Your task to perform on an android device: toggle show notifications on the lock screen Image 0: 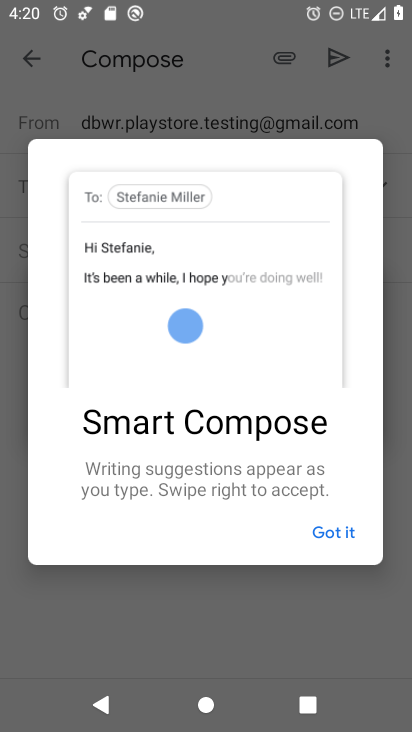
Step 0: press home button
Your task to perform on an android device: toggle show notifications on the lock screen Image 1: 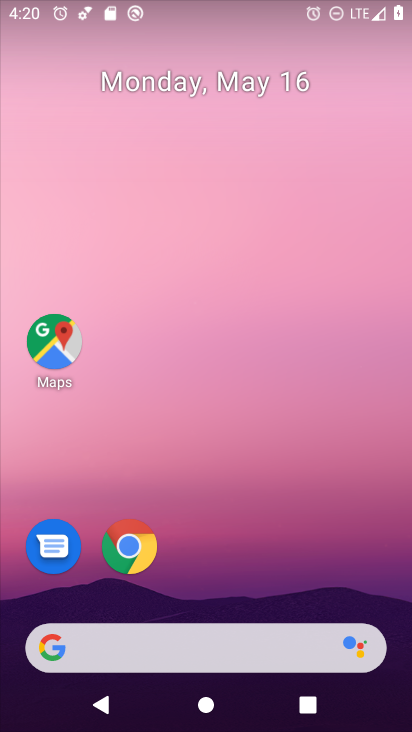
Step 1: drag from (340, 561) to (356, 119)
Your task to perform on an android device: toggle show notifications on the lock screen Image 2: 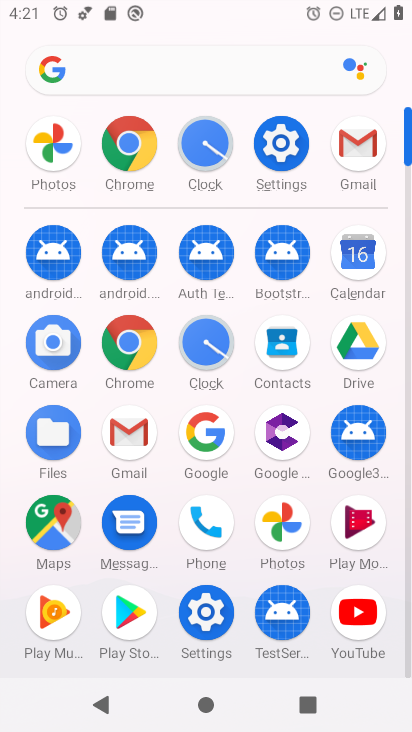
Step 2: click (207, 628)
Your task to perform on an android device: toggle show notifications on the lock screen Image 3: 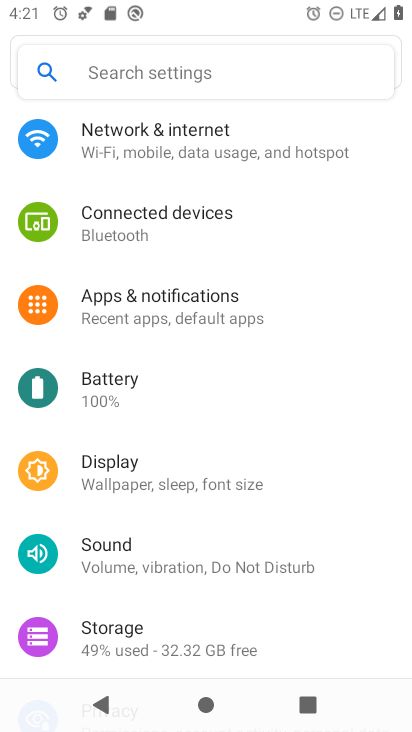
Step 3: drag from (328, 614) to (348, 472)
Your task to perform on an android device: toggle show notifications on the lock screen Image 4: 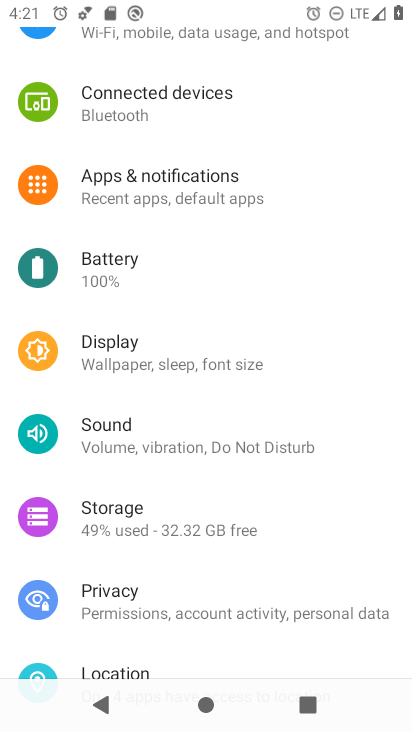
Step 4: drag from (327, 625) to (350, 455)
Your task to perform on an android device: toggle show notifications on the lock screen Image 5: 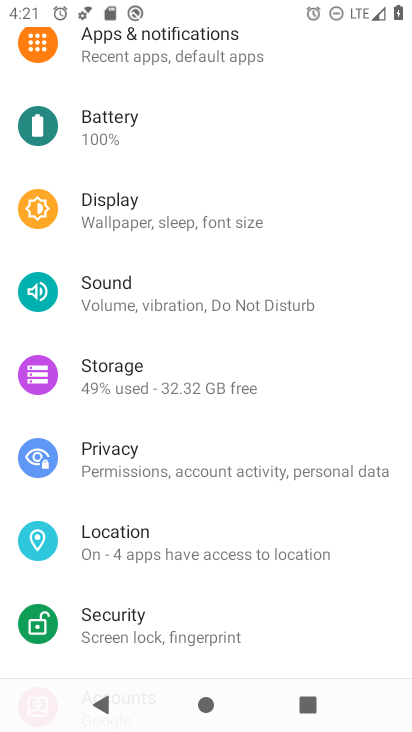
Step 5: drag from (333, 622) to (345, 406)
Your task to perform on an android device: toggle show notifications on the lock screen Image 6: 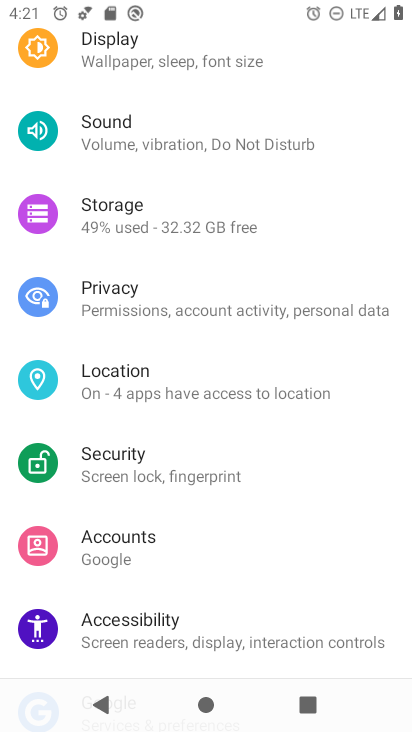
Step 6: drag from (303, 635) to (327, 409)
Your task to perform on an android device: toggle show notifications on the lock screen Image 7: 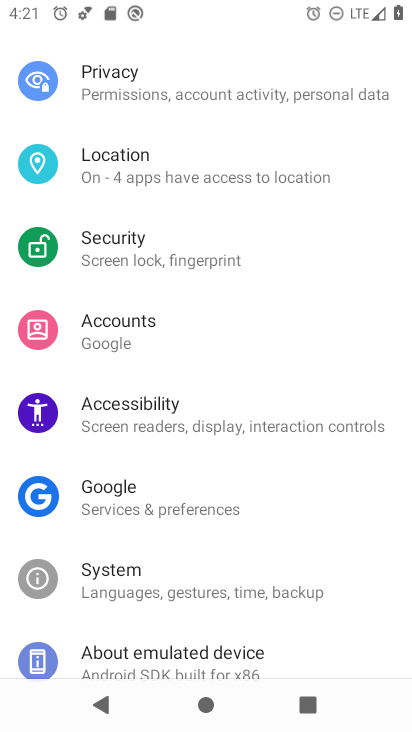
Step 7: drag from (297, 647) to (317, 448)
Your task to perform on an android device: toggle show notifications on the lock screen Image 8: 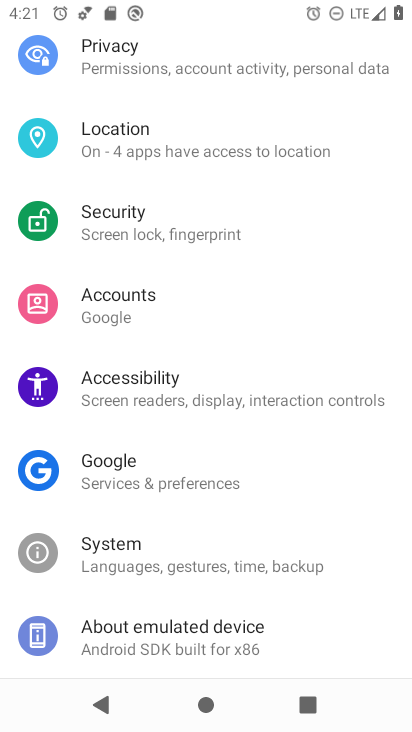
Step 8: drag from (332, 298) to (327, 413)
Your task to perform on an android device: toggle show notifications on the lock screen Image 9: 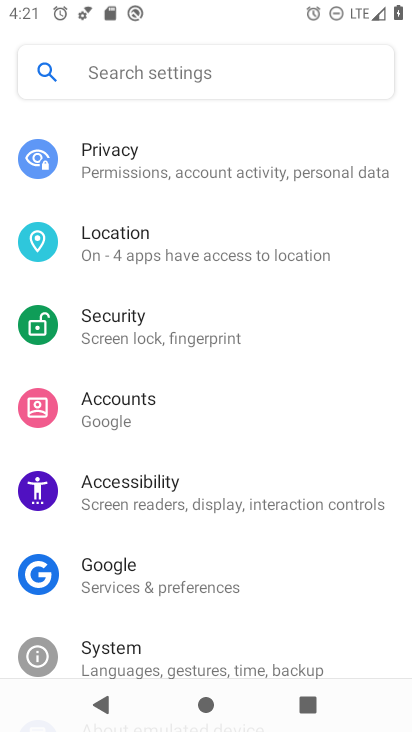
Step 9: drag from (361, 240) to (362, 374)
Your task to perform on an android device: toggle show notifications on the lock screen Image 10: 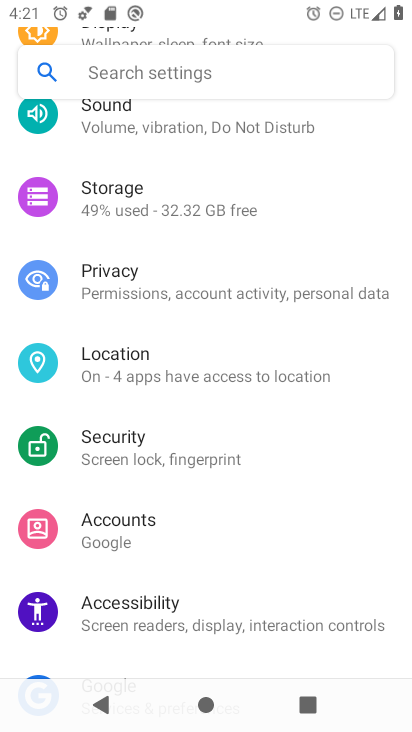
Step 10: drag from (360, 229) to (358, 351)
Your task to perform on an android device: toggle show notifications on the lock screen Image 11: 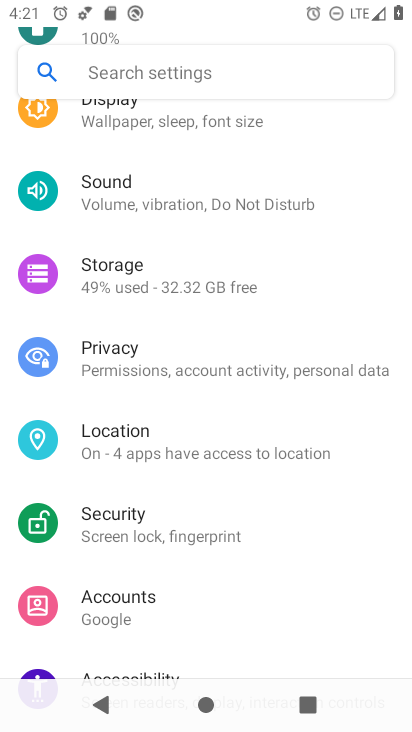
Step 11: drag from (353, 243) to (338, 409)
Your task to perform on an android device: toggle show notifications on the lock screen Image 12: 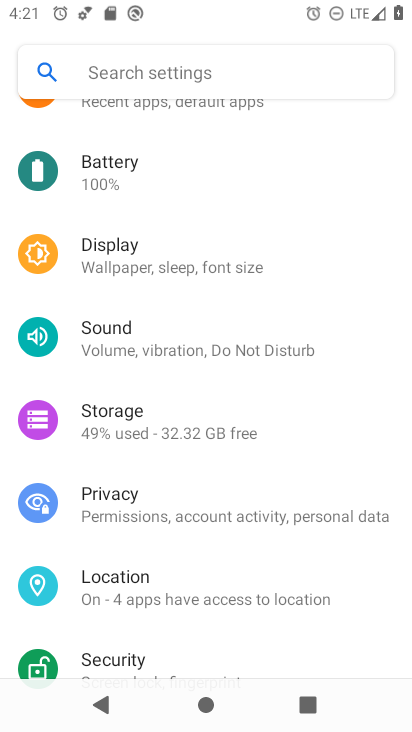
Step 12: drag from (335, 236) to (344, 407)
Your task to perform on an android device: toggle show notifications on the lock screen Image 13: 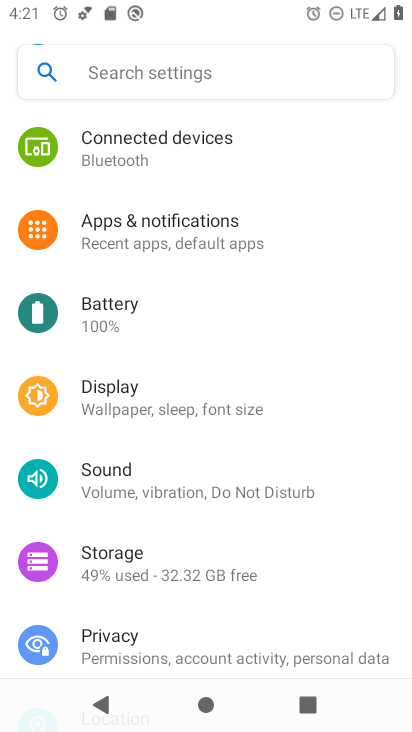
Step 13: drag from (336, 207) to (335, 388)
Your task to perform on an android device: toggle show notifications on the lock screen Image 14: 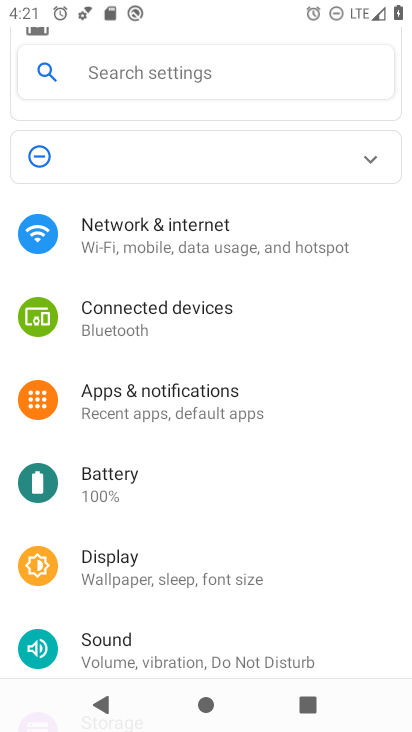
Step 14: click (180, 412)
Your task to perform on an android device: toggle show notifications on the lock screen Image 15: 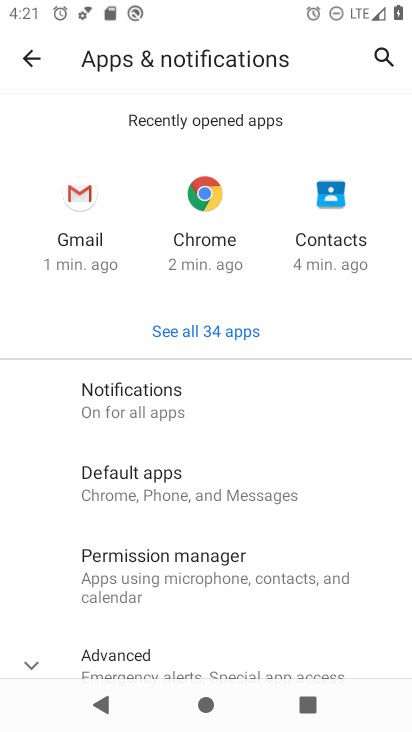
Step 15: click (171, 422)
Your task to perform on an android device: toggle show notifications on the lock screen Image 16: 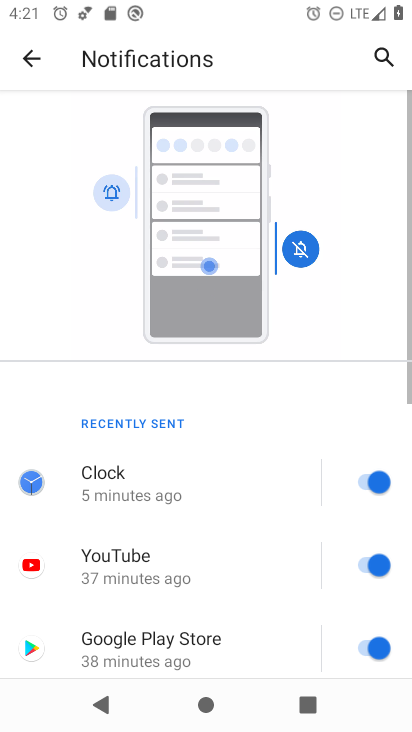
Step 16: drag from (262, 566) to (291, 335)
Your task to perform on an android device: toggle show notifications on the lock screen Image 17: 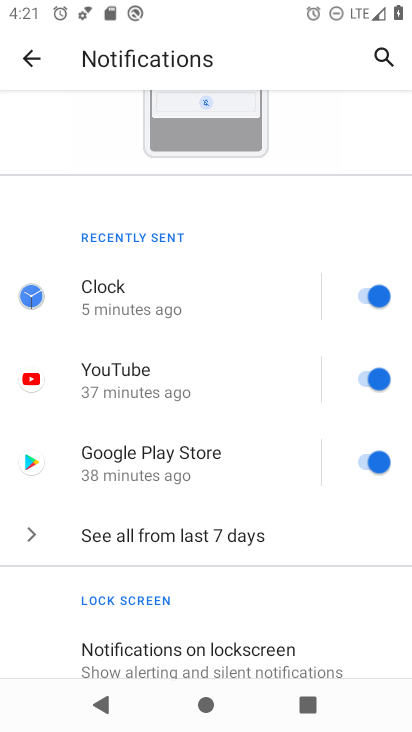
Step 17: drag from (261, 602) to (267, 400)
Your task to perform on an android device: toggle show notifications on the lock screen Image 18: 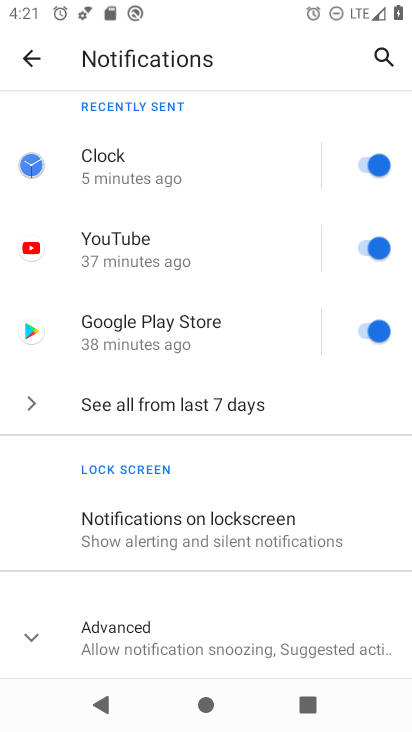
Step 18: click (248, 546)
Your task to perform on an android device: toggle show notifications on the lock screen Image 19: 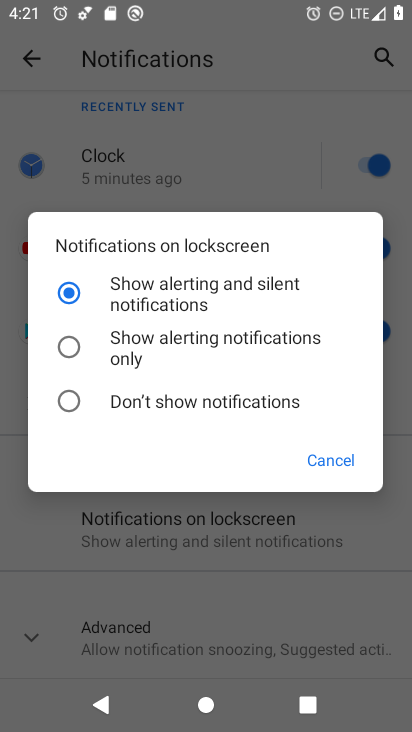
Step 19: click (69, 351)
Your task to perform on an android device: toggle show notifications on the lock screen Image 20: 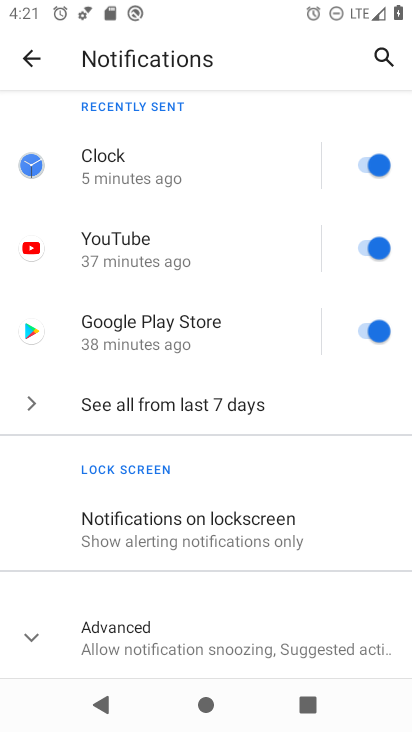
Step 20: task complete